Your task to perform on an android device: Go to battery settings Image 0: 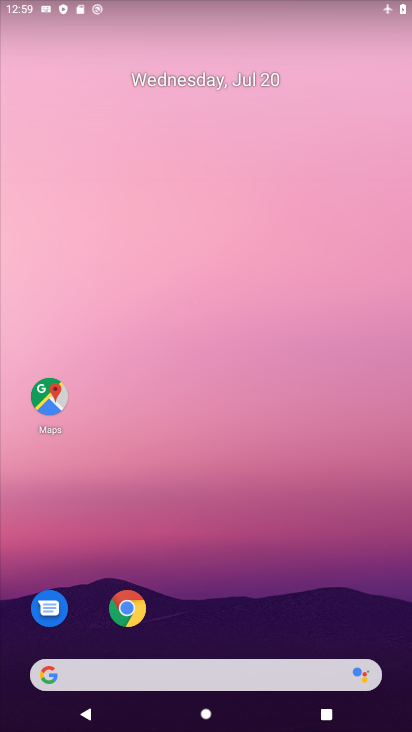
Step 0: drag from (281, 662) to (281, 151)
Your task to perform on an android device: Go to battery settings Image 1: 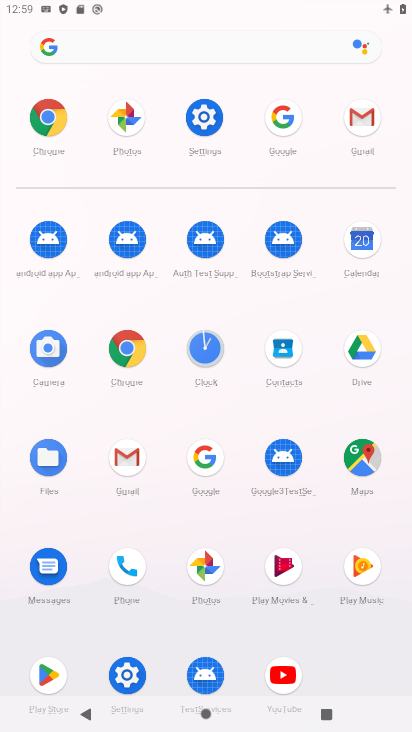
Step 1: click (205, 115)
Your task to perform on an android device: Go to battery settings Image 2: 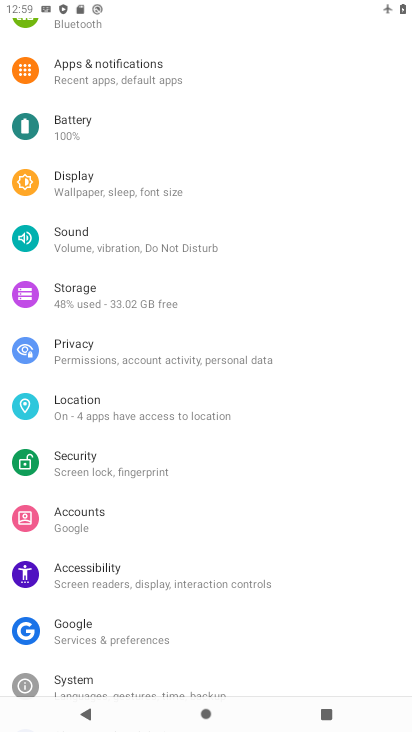
Step 2: click (64, 127)
Your task to perform on an android device: Go to battery settings Image 3: 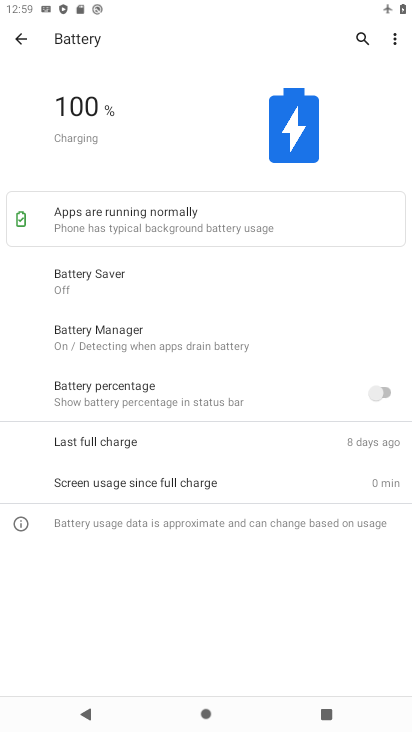
Step 3: task complete